Your task to perform on an android device: Show me popular videos on Youtube Image 0: 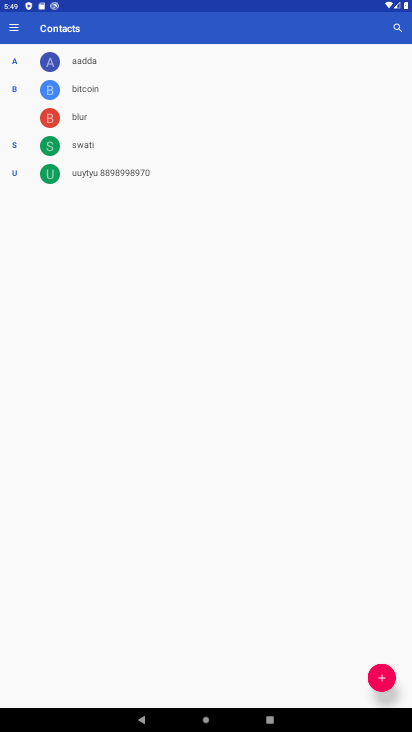
Step 0: press home button
Your task to perform on an android device: Show me popular videos on Youtube Image 1: 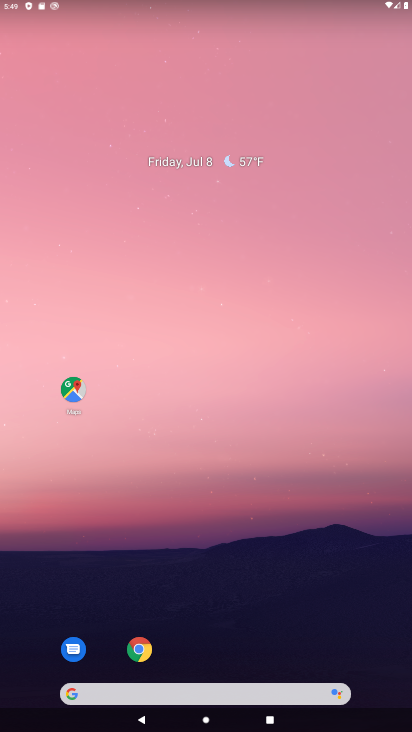
Step 1: drag from (281, 680) to (287, 105)
Your task to perform on an android device: Show me popular videos on Youtube Image 2: 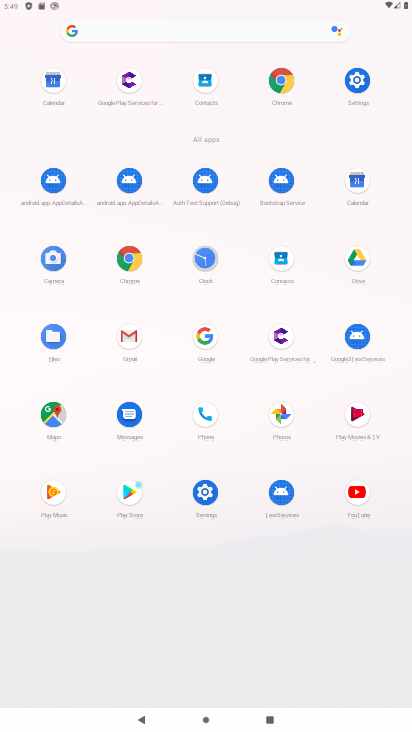
Step 2: click (357, 501)
Your task to perform on an android device: Show me popular videos on Youtube Image 3: 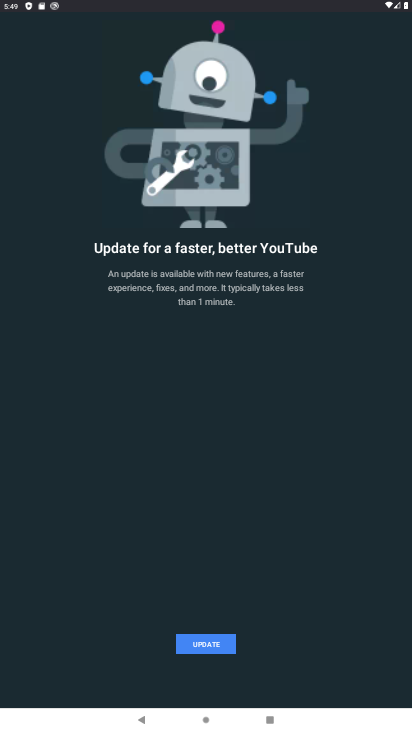
Step 3: click (223, 636)
Your task to perform on an android device: Show me popular videos on Youtube Image 4: 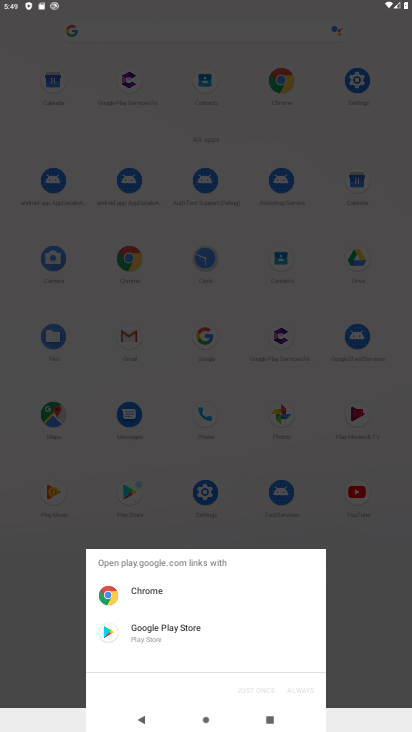
Step 4: click (200, 628)
Your task to perform on an android device: Show me popular videos on Youtube Image 5: 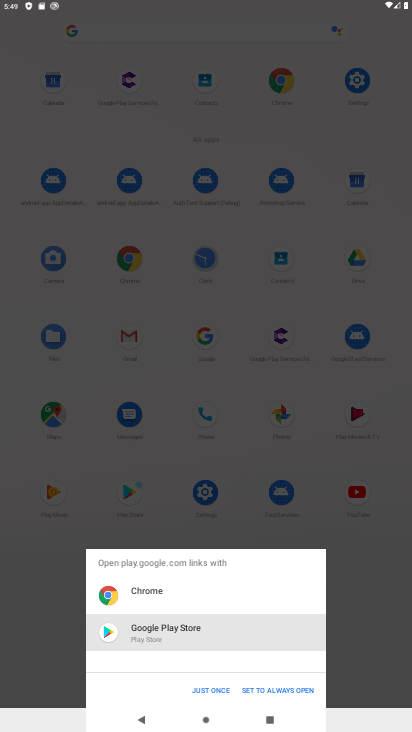
Step 5: click (214, 691)
Your task to perform on an android device: Show me popular videos on Youtube Image 6: 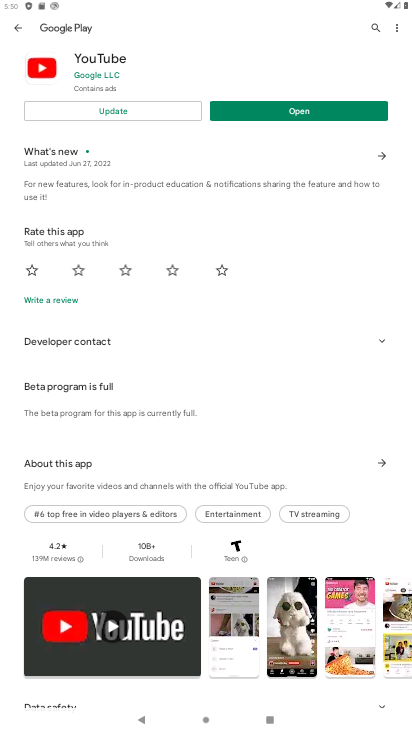
Step 6: click (150, 106)
Your task to perform on an android device: Show me popular videos on Youtube Image 7: 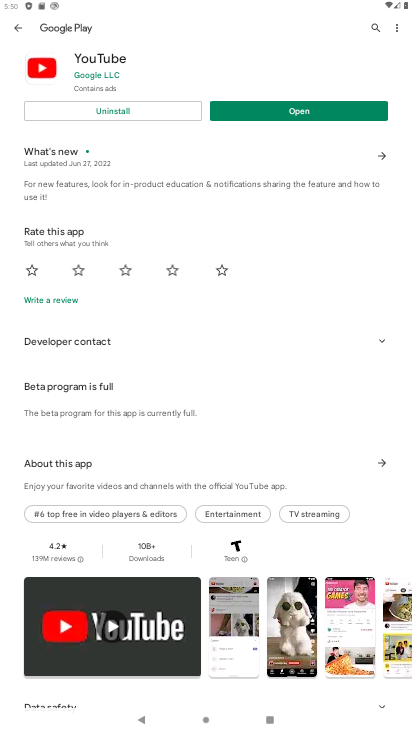
Step 7: click (322, 113)
Your task to perform on an android device: Show me popular videos on Youtube Image 8: 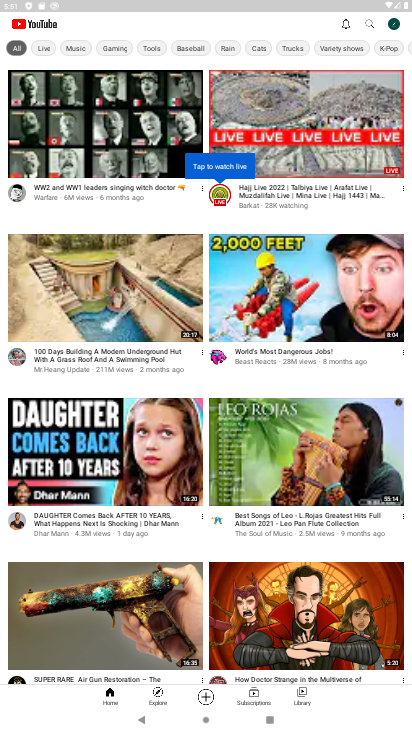
Step 8: task complete